Your task to perform on an android device: View the shopping cart on amazon. Search for logitech g pro on amazon, select the first entry, and add it to the cart. Image 0: 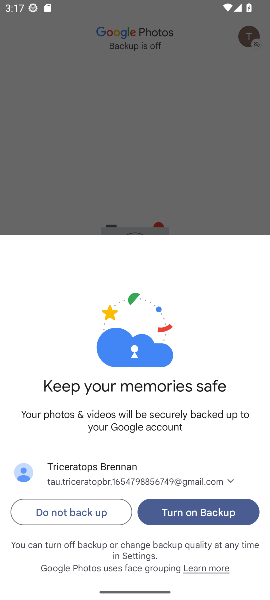
Step 0: press home button
Your task to perform on an android device: View the shopping cart on amazon. Search for logitech g pro on amazon, select the first entry, and add it to the cart. Image 1: 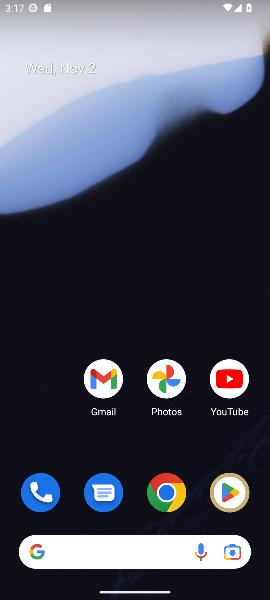
Step 1: click (167, 492)
Your task to perform on an android device: View the shopping cart on amazon. Search for logitech g pro on amazon, select the first entry, and add it to the cart. Image 2: 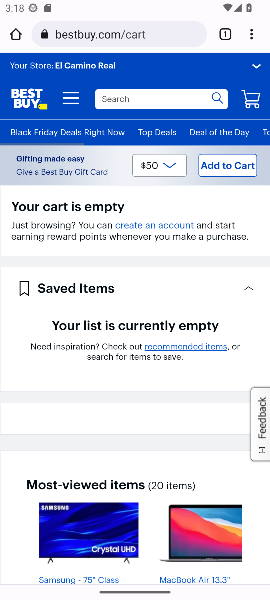
Step 2: click (248, 97)
Your task to perform on an android device: View the shopping cart on amazon. Search for logitech g pro on amazon, select the first entry, and add it to the cart. Image 3: 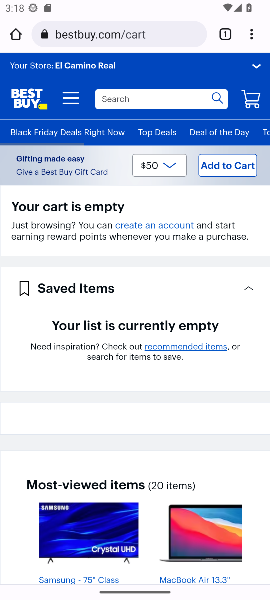
Step 3: click (126, 97)
Your task to perform on an android device: View the shopping cart on amazon. Search for logitech g pro on amazon, select the first entry, and add it to the cart. Image 4: 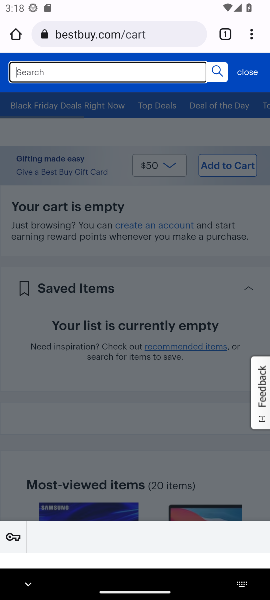
Step 4: type "logitech g pro"
Your task to perform on an android device: View the shopping cart on amazon. Search for logitech g pro on amazon, select the first entry, and add it to the cart. Image 5: 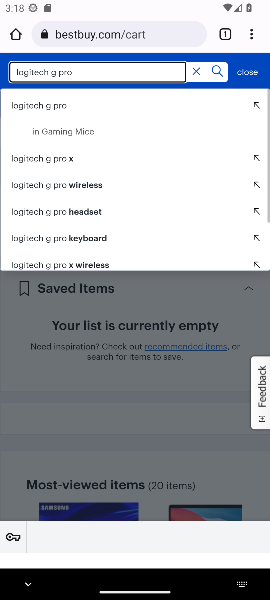
Step 5: click (32, 101)
Your task to perform on an android device: View the shopping cart on amazon. Search for logitech g pro on amazon, select the first entry, and add it to the cart. Image 6: 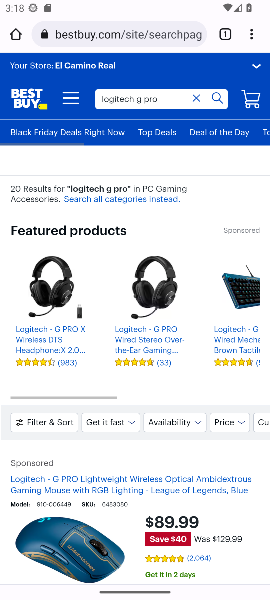
Step 6: drag from (148, 446) to (145, 260)
Your task to perform on an android device: View the shopping cart on amazon. Search for logitech g pro on amazon, select the first entry, and add it to the cart. Image 7: 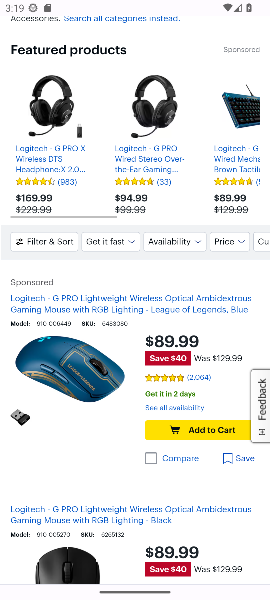
Step 7: click (200, 425)
Your task to perform on an android device: View the shopping cart on amazon. Search for logitech g pro on amazon, select the first entry, and add it to the cart. Image 8: 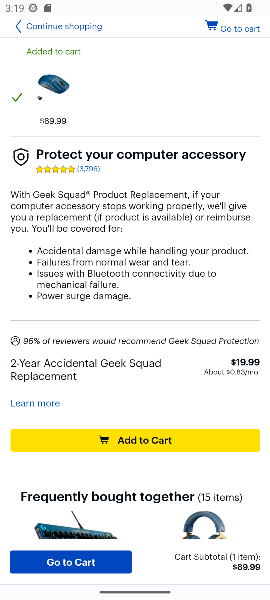
Step 8: click (136, 439)
Your task to perform on an android device: View the shopping cart on amazon. Search for logitech g pro on amazon, select the first entry, and add it to the cart. Image 9: 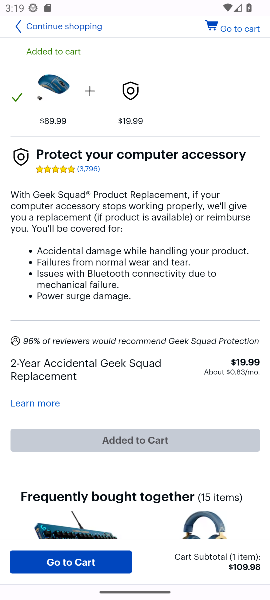
Step 9: click (231, 24)
Your task to perform on an android device: View the shopping cart on amazon. Search for logitech g pro on amazon, select the first entry, and add it to the cart. Image 10: 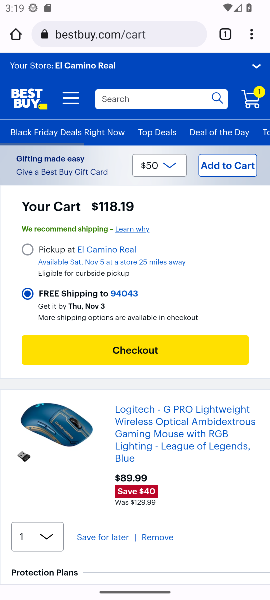
Step 10: task complete